Your task to perform on an android device: empty trash in google photos Image 0: 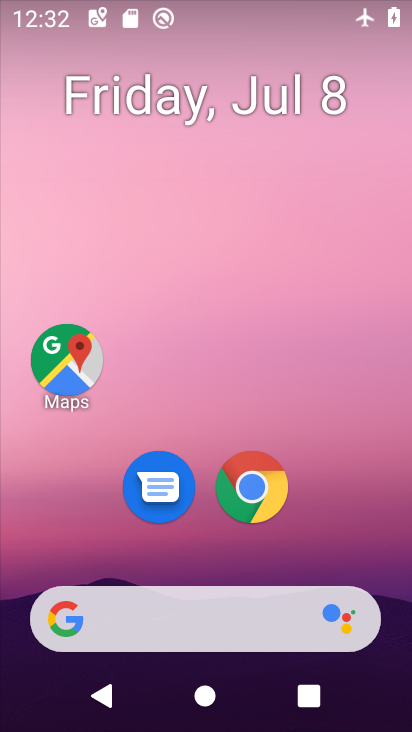
Step 0: drag from (351, 560) to (361, 174)
Your task to perform on an android device: empty trash in google photos Image 1: 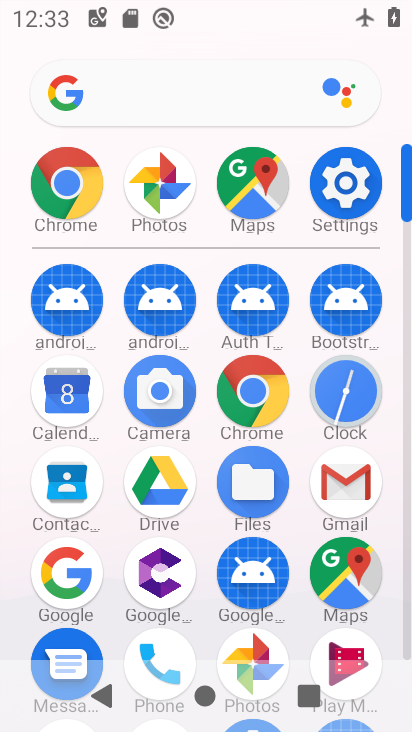
Step 1: click (163, 178)
Your task to perform on an android device: empty trash in google photos Image 2: 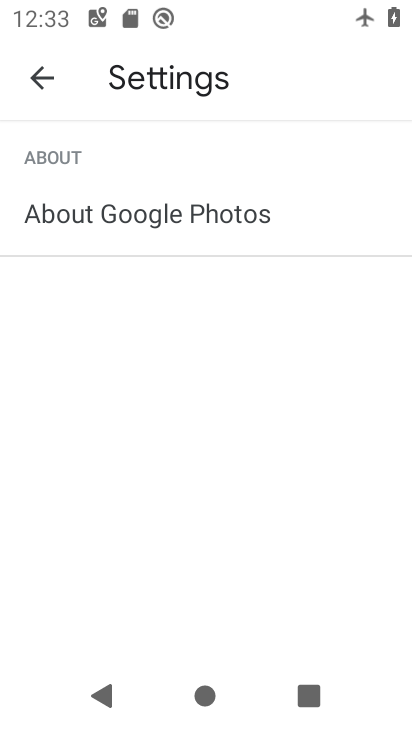
Step 2: press back button
Your task to perform on an android device: empty trash in google photos Image 3: 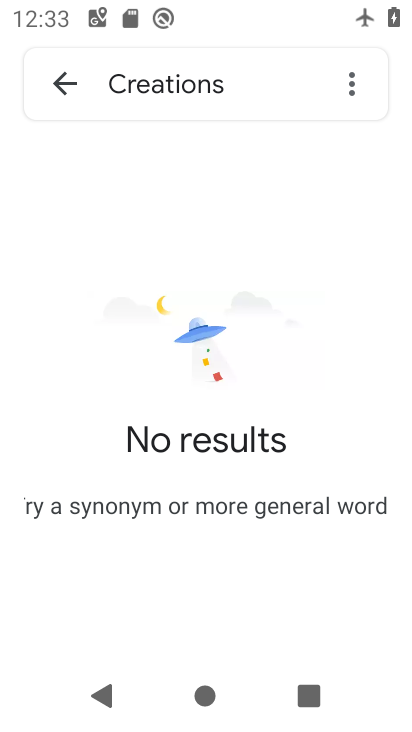
Step 3: press back button
Your task to perform on an android device: empty trash in google photos Image 4: 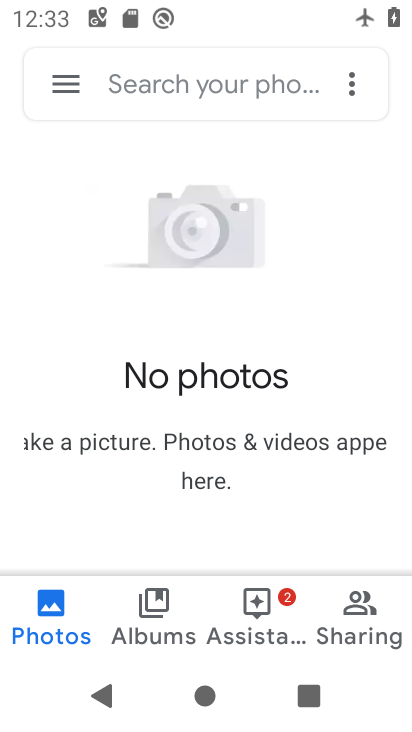
Step 4: click (62, 79)
Your task to perform on an android device: empty trash in google photos Image 5: 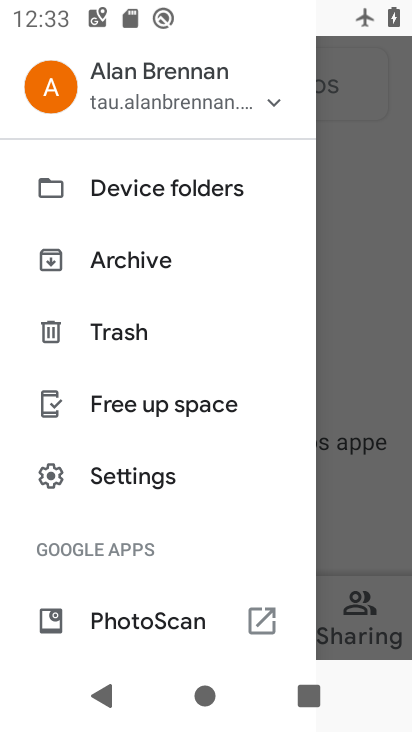
Step 5: click (171, 330)
Your task to perform on an android device: empty trash in google photos Image 6: 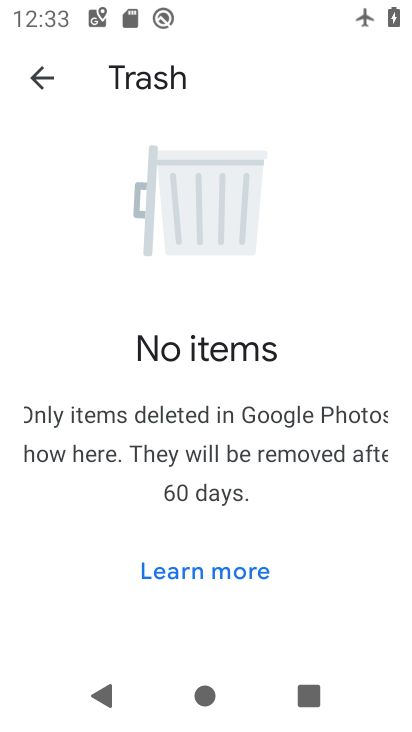
Step 6: task complete